Your task to perform on an android device: Find coffee shops on Maps Image 0: 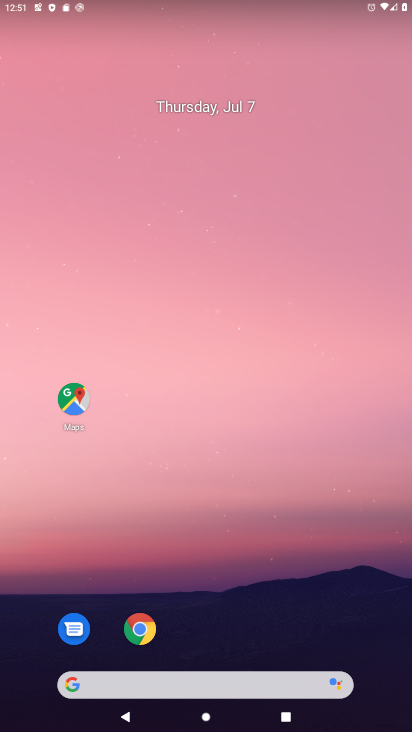
Step 0: click (77, 398)
Your task to perform on an android device: Find coffee shops on Maps Image 1: 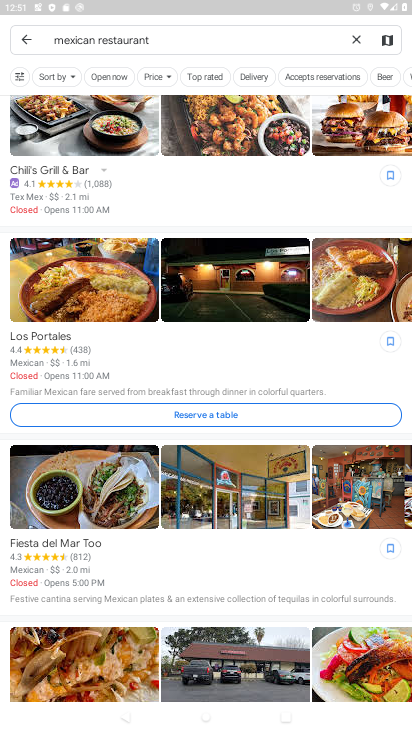
Step 1: click (355, 42)
Your task to perform on an android device: Find coffee shops on Maps Image 2: 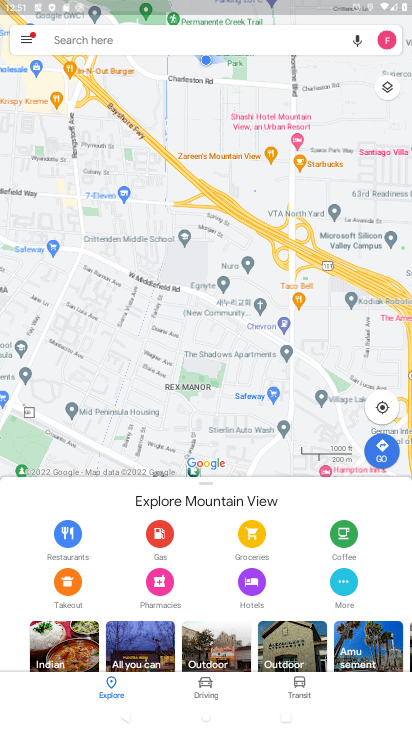
Step 2: click (208, 37)
Your task to perform on an android device: Find coffee shops on Maps Image 3: 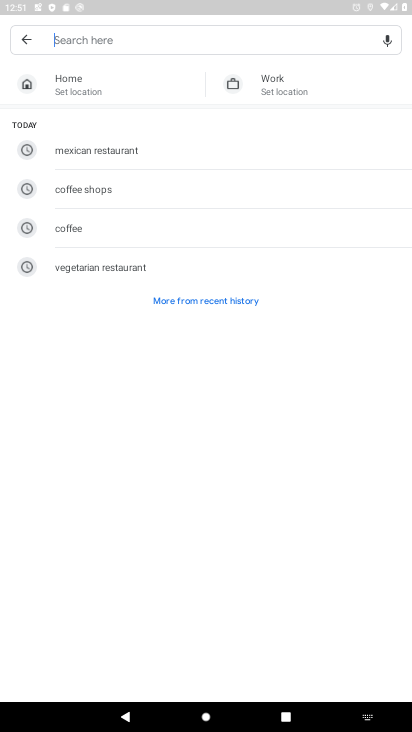
Step 3: type "coffee shops"
Your task to perform on an android device: Find coffee shops on Maps Image 4: 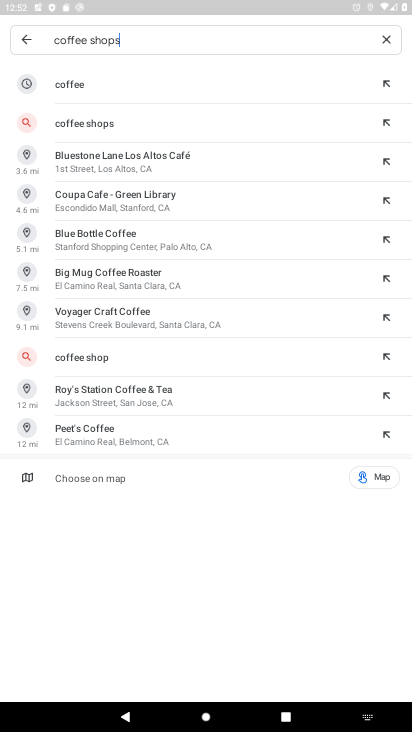
Step 4: click (101, 121)
Your task to perform on an android device: Find coffee shops on Maps Image 5: 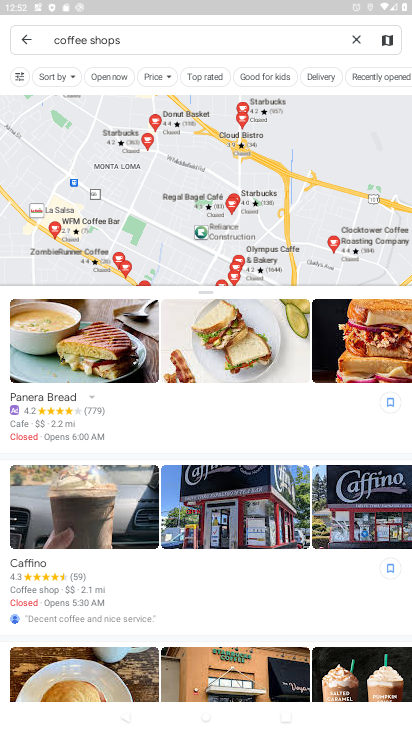
Step 5: task complete